Your task to perform on an android device: Open Amazon Image 0: 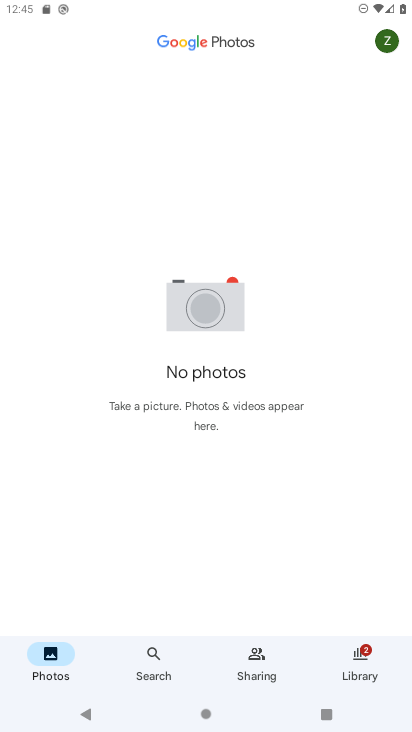
Step 0: press home button
Your task to perform on an android device: Open Amazon Image 1: 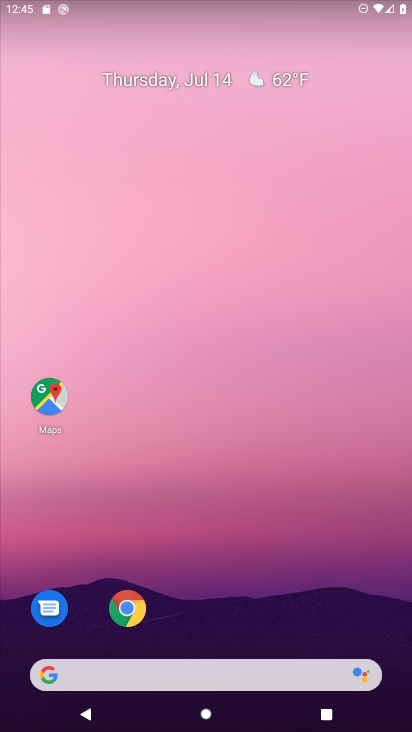
Step 1: click (126, 607)
Your task to perform on an android device: Open Amazon Image 2: 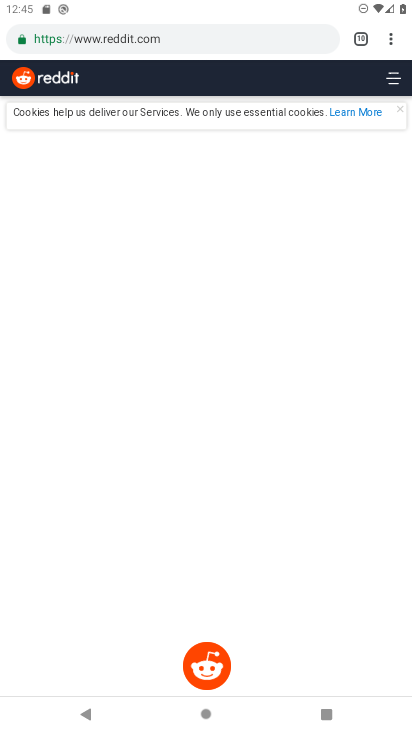
Step 2: click (389, 42)
Your task to perform on an android device: Open Amazon Image 3: 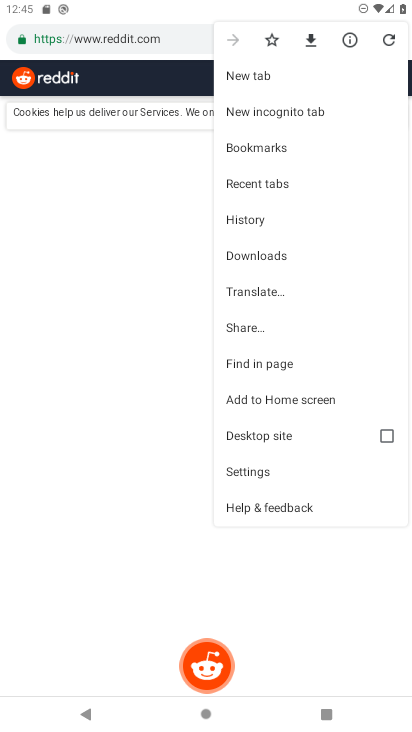
Step 3: click (233, 78)
Your task to perform on an android device: Open Amazon Image 4: 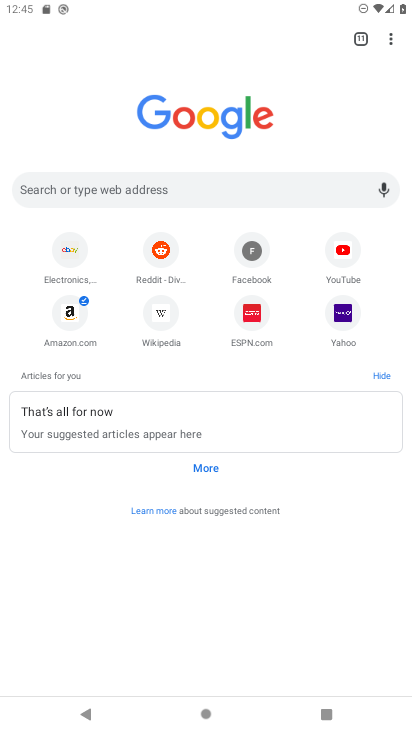
Step 4: click (63, 314)
Your task to perform on an android device: Open Amazon Image 5: 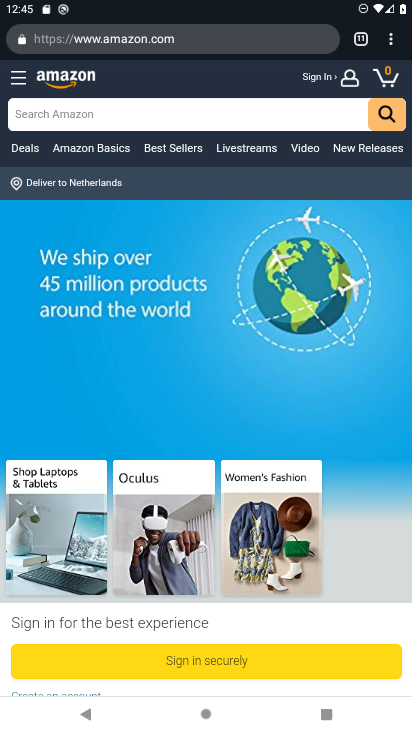
Step 5: task complete